Your task to perform on an android device: change timer sound Image 0: 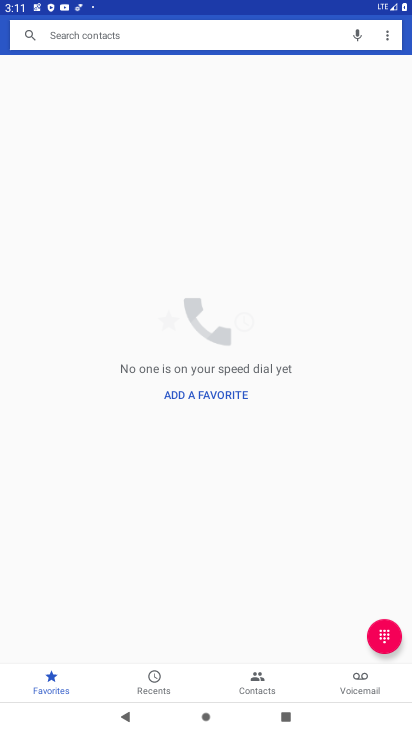
Step 0: press home button
Your task to perform on an android device: change timer sound Image 1: 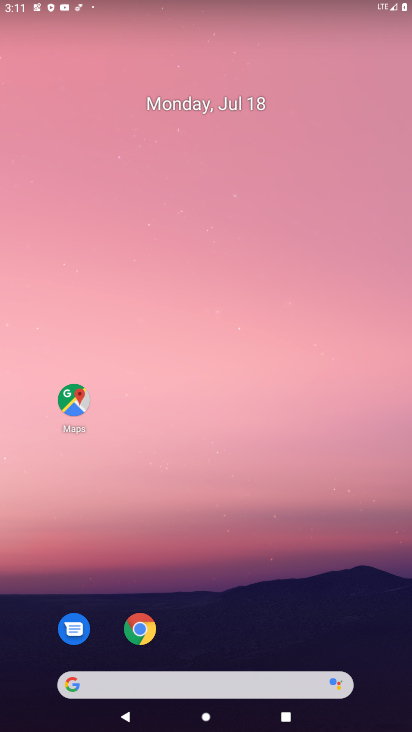
Step 1: drag from (229, 634) to (143, 16)
Your task to perform on an android device: change timer sound Image 2: 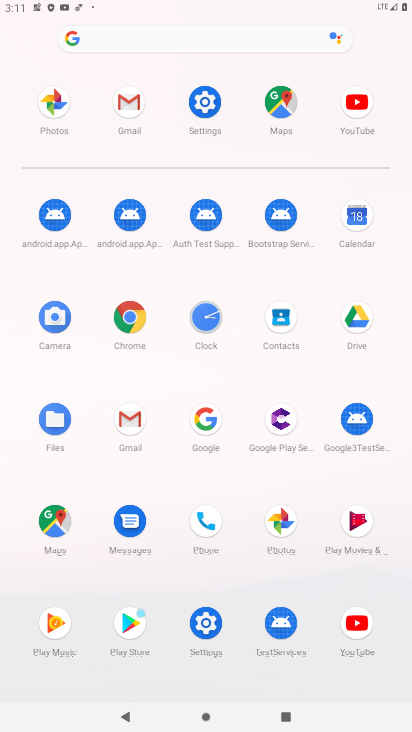
Step 2: click (206, 634)
Your task to perform on an android device: change timer sound Image 3: 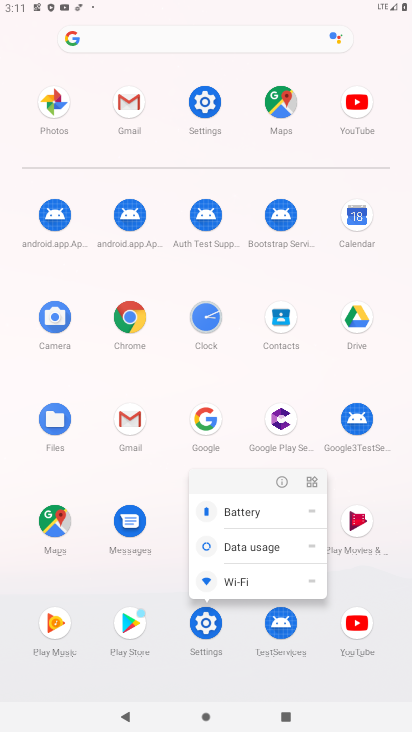
Step 3: click (208, 648)
Your task to perform on an android device: change timer sound Image 4: 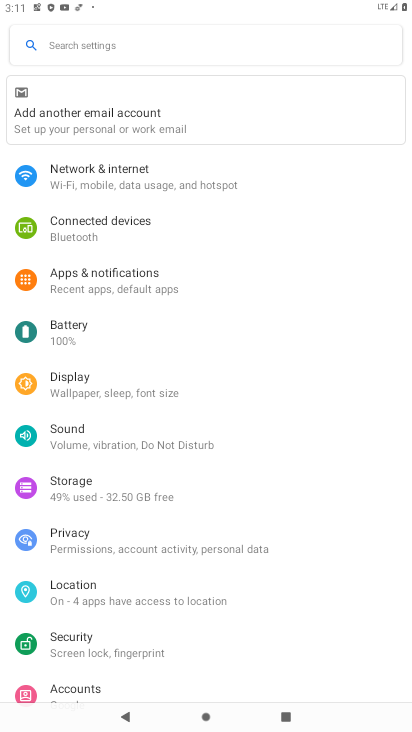
Step 4: press home button
Your task to perform on an android device: change timer sound Image 5: 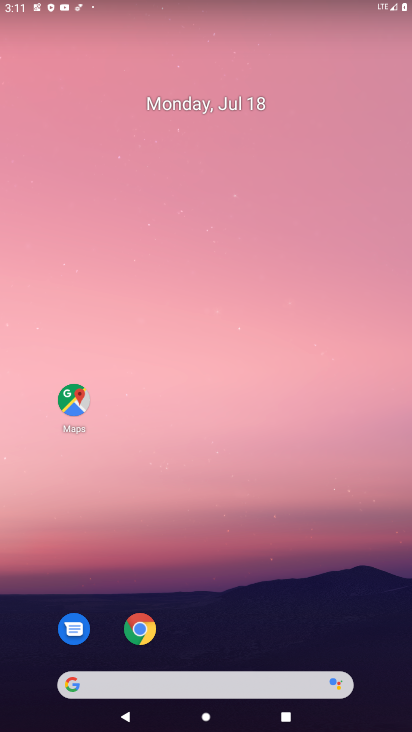
Step 5: drag from (217, 640) to (209, 209)
Your task to perform on an android device: change timer sound Image 6: 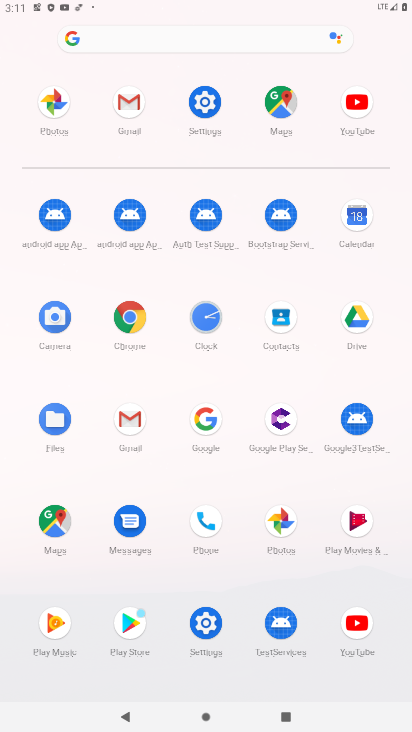
Step 6: click (208, 311)
Your task to perform on an android device: change timer sound Image 7: 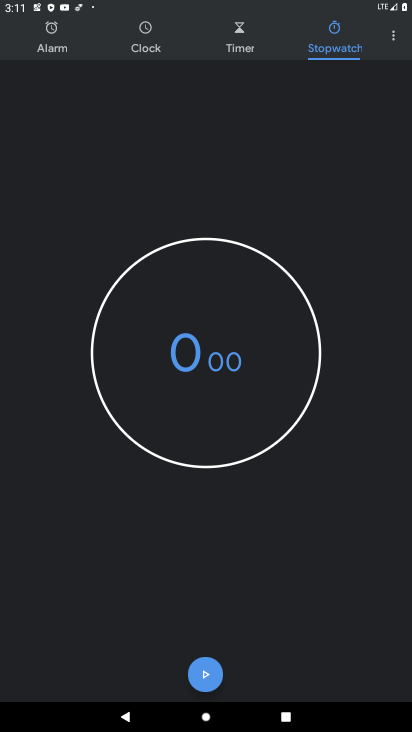
Step 7: click (391, 34)
Your task to perform on an android device: change timer sound Image 8: 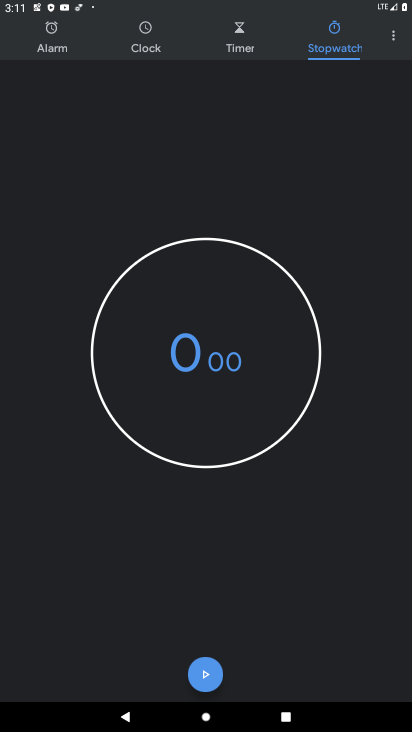
Step 8: click (401, 37)
Your task to perform on an android device: change timer sound Image 9: 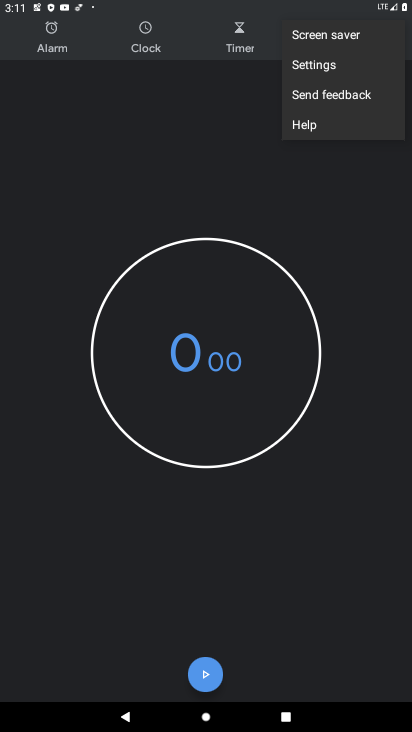
Step 9: click (328, 71)
Your task to perform on an android device: change timer sound Image 10: 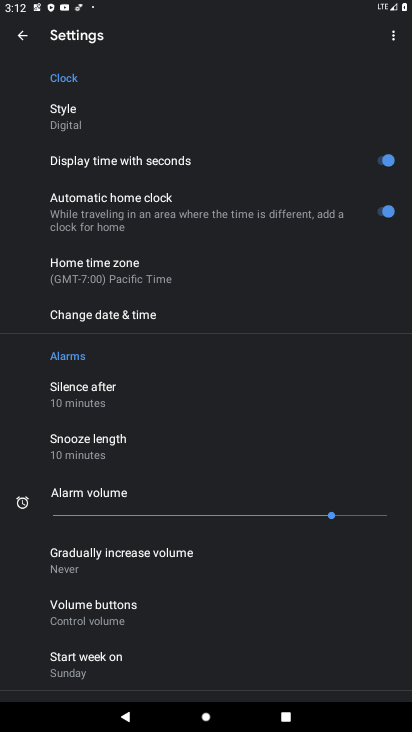
Step 10: drag from (114, 617) to (118, 350)
Your task to perform on an android device: change timer sound Image 11: 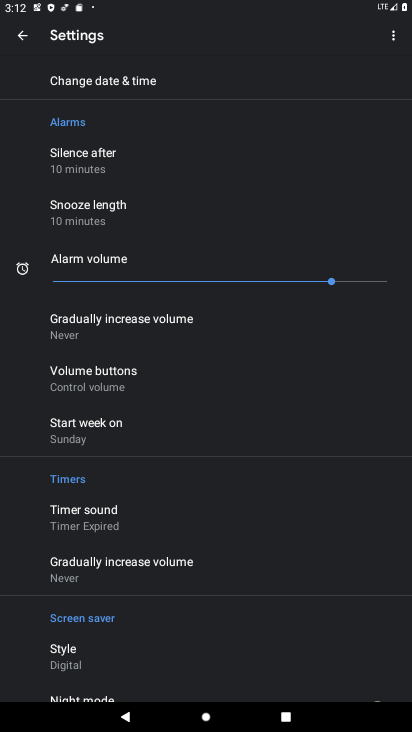
Step 11: click (92, 524)
Your task to perform on an android device: change timer sound Image 12: 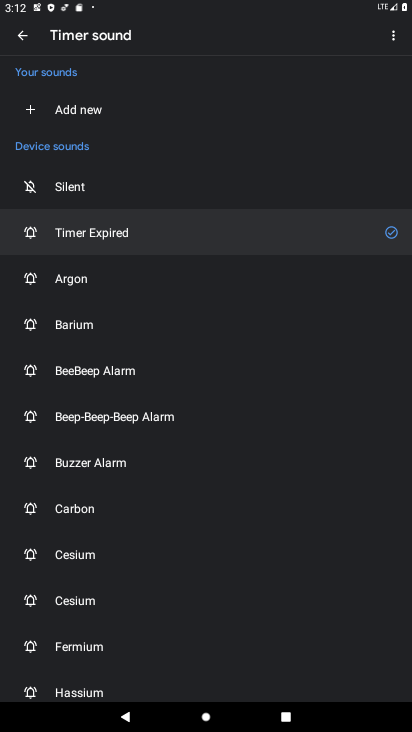
Step 12: click (82, 289)
Your task to perform on an android device: change timer sound Image 13: 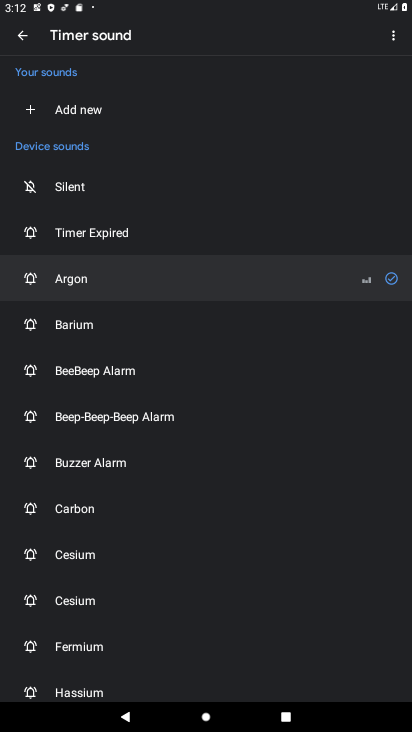
Step 13: task complete